Your task to perform on an android device: Search for pizza restaurants on Maps Image 0: 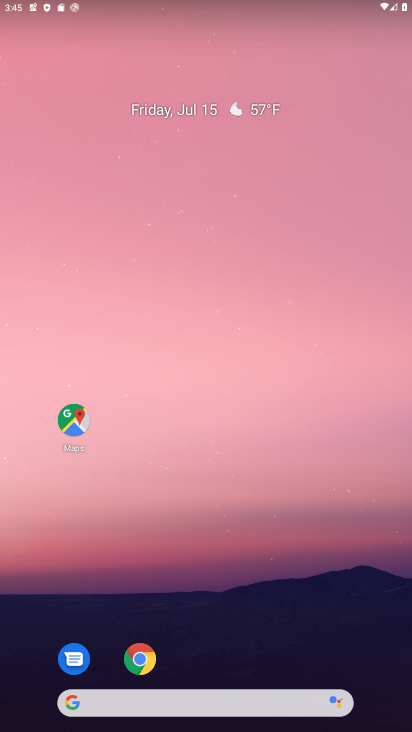
Step 0: drag from (197, 691) to (159, 290)
Your task to perform on an android device: Search for pizza restaurants on Maps Image 1: 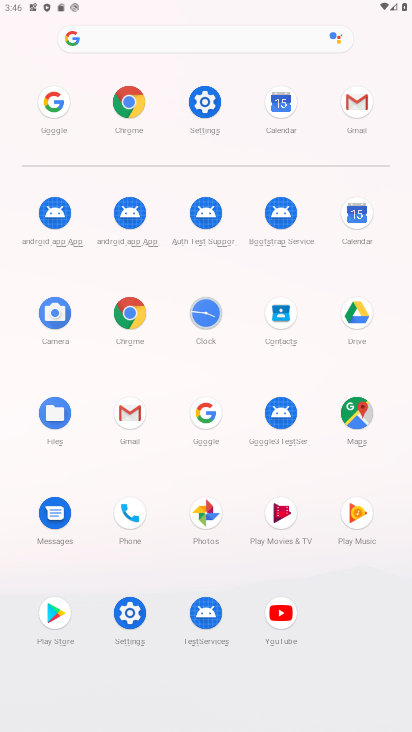
Step 1: click (347, 425)
Your task to perform on an android device: Search for pizza restaurants on Maps Image 2: 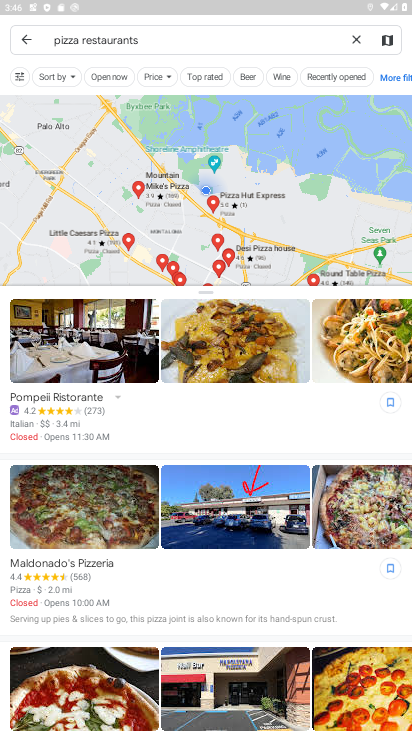
Step 2: task complete